Your task to perform on an android device: delete the emails in spam in the gmail app Image 0: 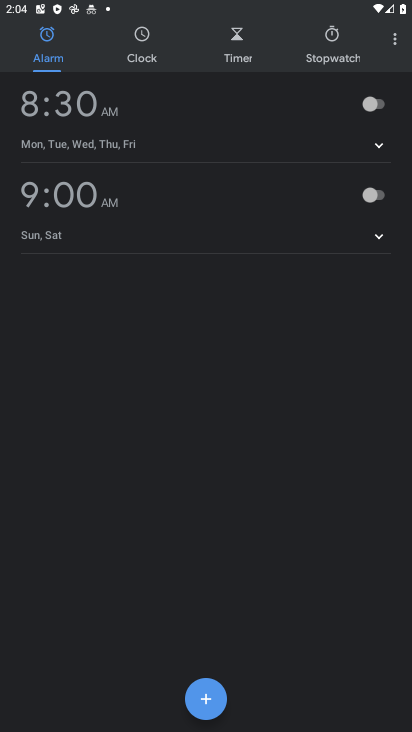
Step 0: press home button
Your task to perform on an android device: delete the emails in spam in the gmail app Image 1: 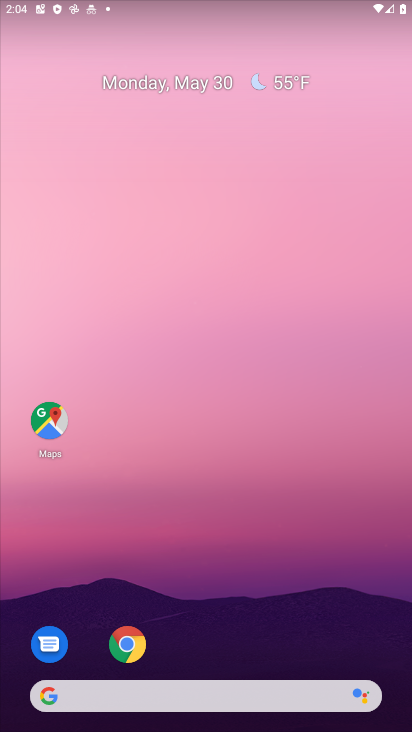
Step 1: drag from (236, 651) to (211, 203)
Your task to perform on an android device: delete the emails in spam in the gmail app Image 2: 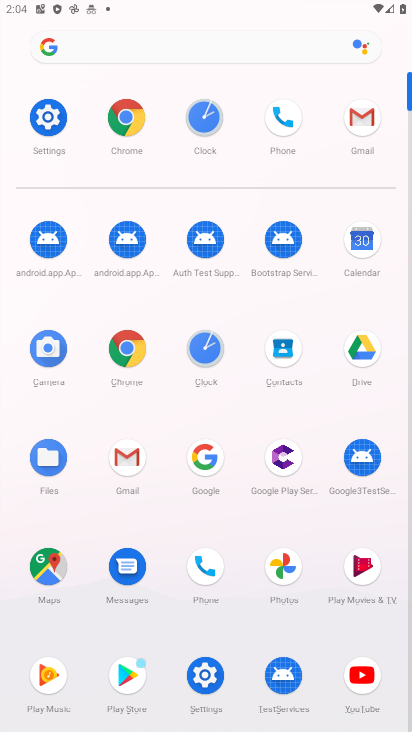
Step 2: click (136, 454)
Your task to perform on an android device: delete the emails in spam in the gmail app Image 3: 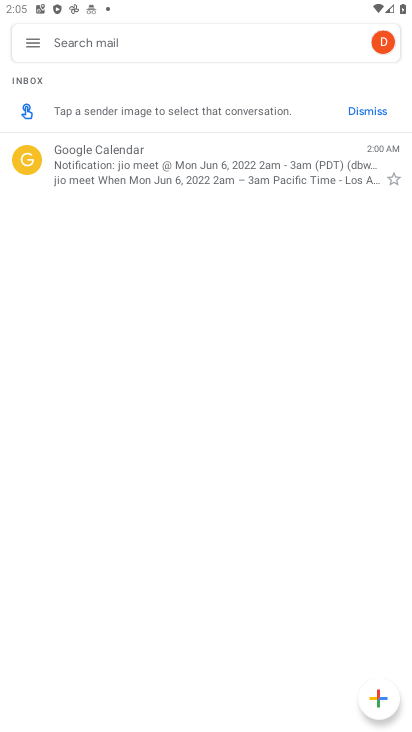
Step 3: task complete